Your task to perform on an android device: What's the weather today? Image 0: 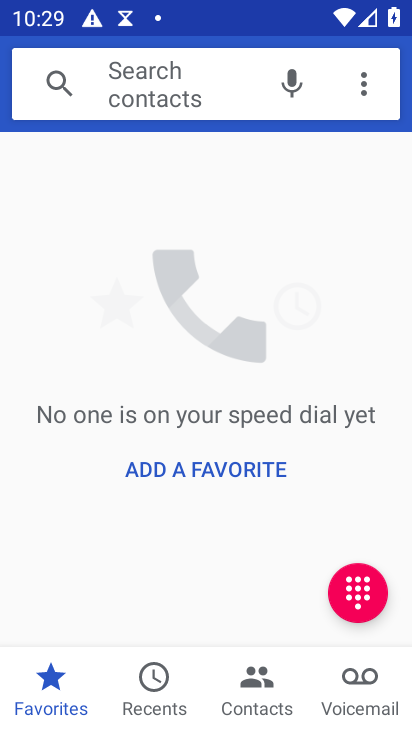
Step 0: press home button
Your task to perform on an android device: What's the weather today? Image 1: 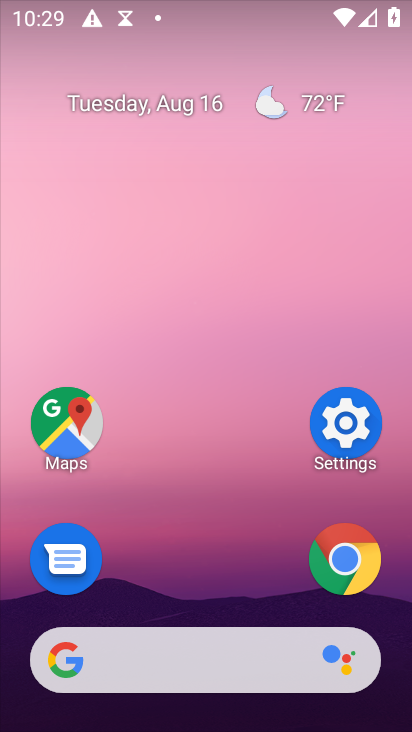
Step 1: click (160, 657)
Your task to perform on an android device: What's the weather today? Image 2: 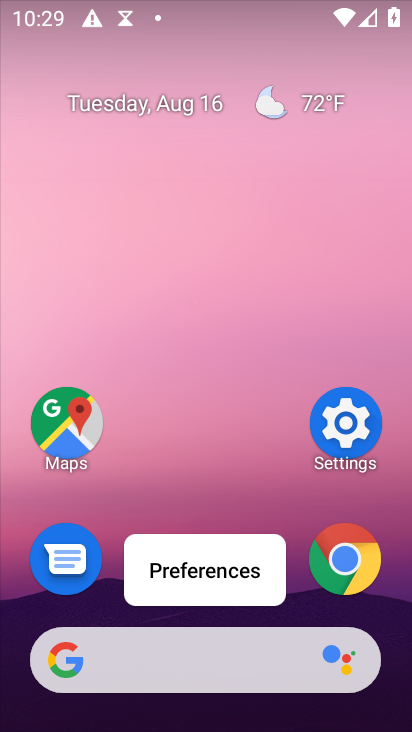
Step 2: click (147, 659)
Your task to perform on an android device: What's the weather today? Image 3: 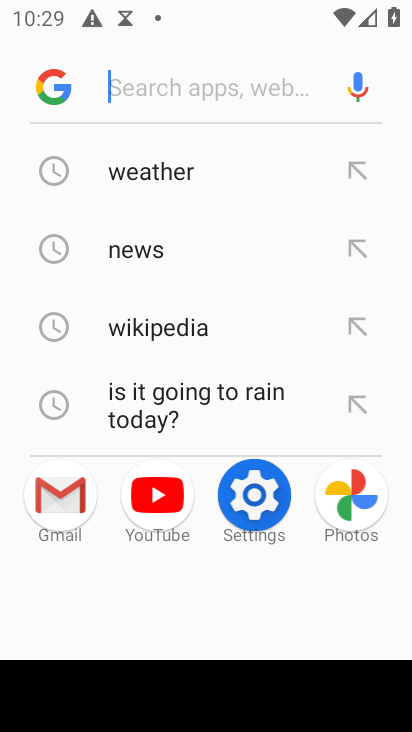
Step 3: click (122, 169)
Your task to perform on an android device: What's the weather today? Image 4: 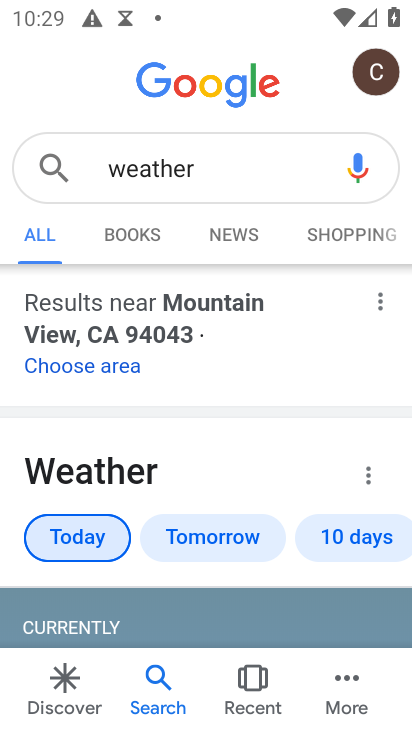
Step 4: task complete